Your task to perform on an android device: Open the Play Movies app and select the watchlist tab. Image 0: 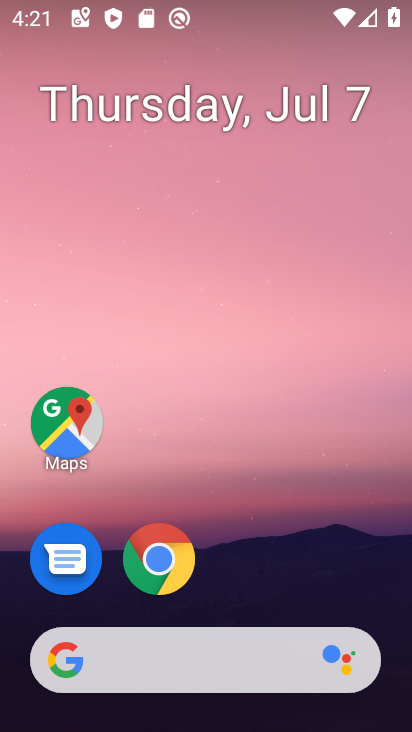
Step 0: drag from (236, 569) to (294, 11)
Your task to perform on an android device: Open the Play Movies app and select the watchlist tab. Image 1: 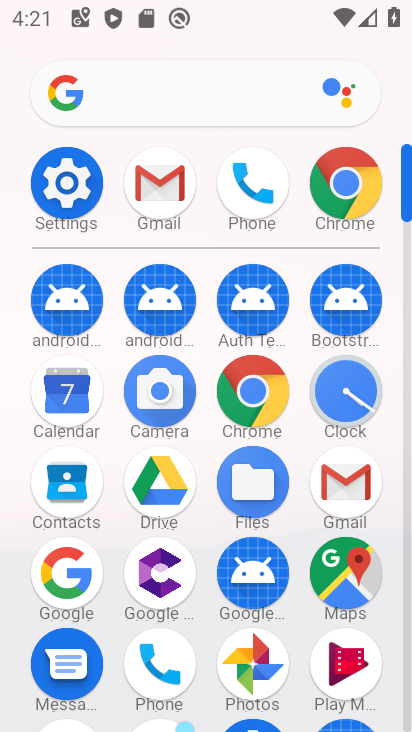
Step 1: click (344, 669)
Your task to perform on an android device: Open the Play Movies app and select the watchlist tab. Image 2: 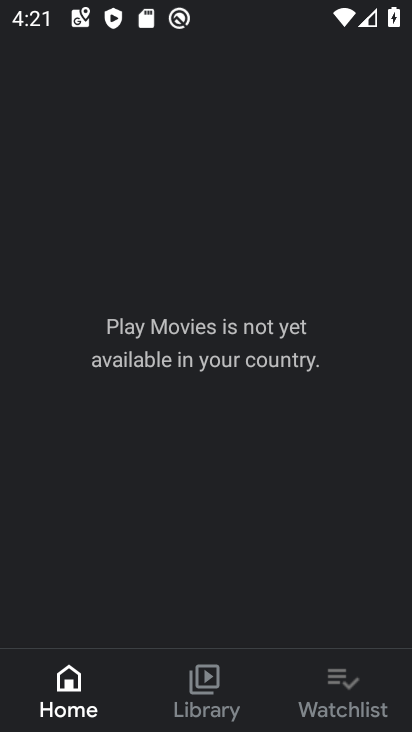
Step 2: click (345, 682)
Your task to perform on an android device: Open the Play Movies app and select the watchlist tab. Image 3: 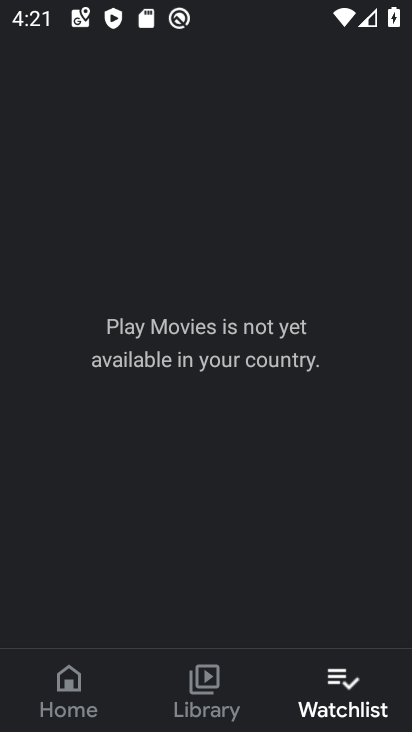
Step 3: task complete